Your task to perform on an android device: Go to ESPN.com Image 0: 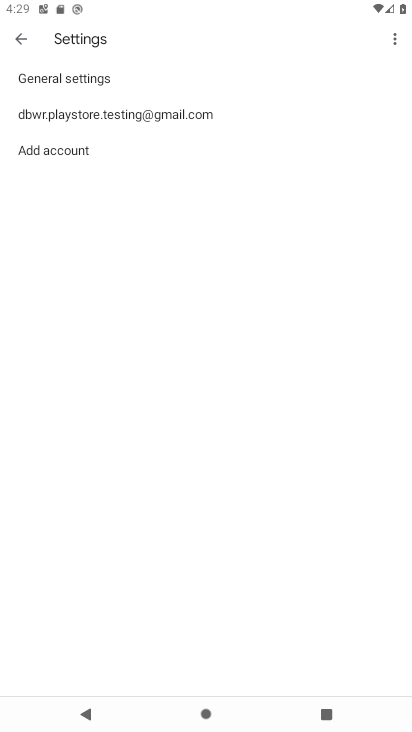
Step 0: press home button
Your task to perform on an android device: Go to ESPN.com Image 1: 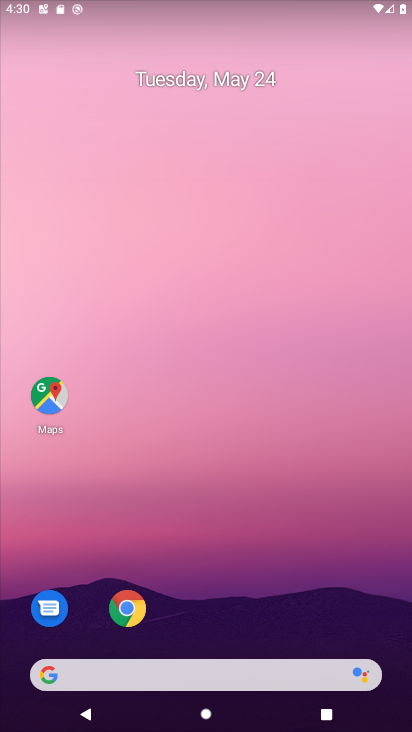
Step 1: click (130, 607)
Your task to perform on an android device: Go to ESPN.com Image 2: 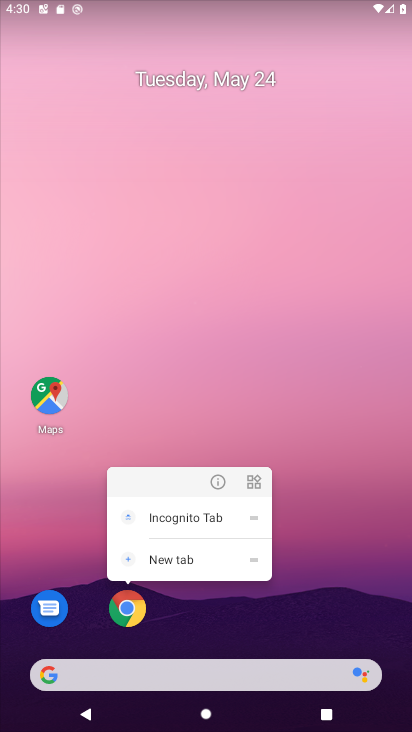
Step 2: click (126, 617)
Your task to perform on an android device: Go to ESPN.com Image 3: 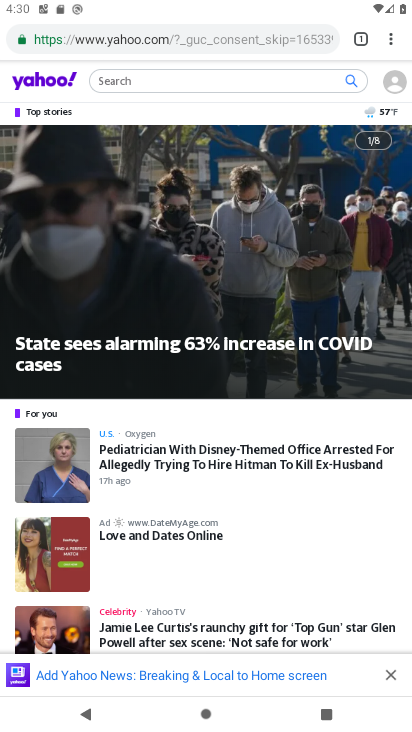
Step 3: click (362, 43)
Your task to perform on an android device: Go to ESPN.com Image 4: 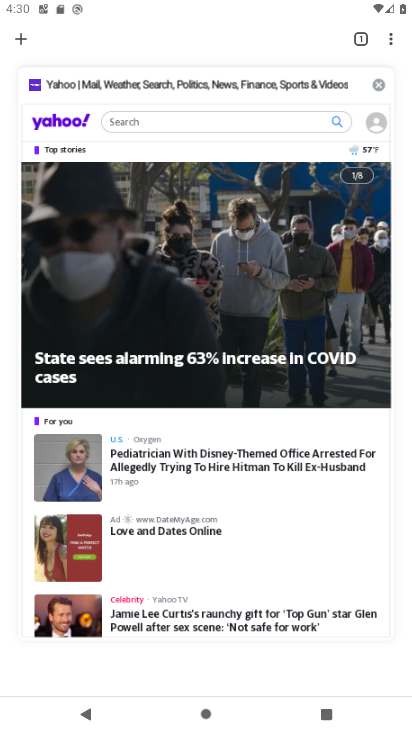
Step 4: click (374, 82)
Your task to perform on an android device: Go to ESPN.com Image 5: 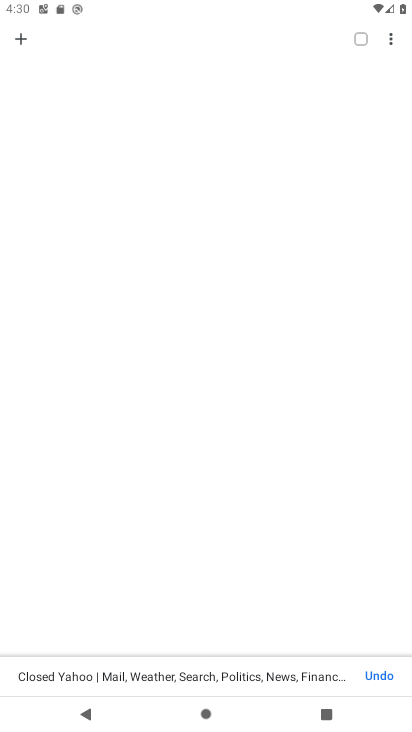
Step 5: click (22, 38)
Your task to perform on an android device: Go to ESPN.com Image 6: 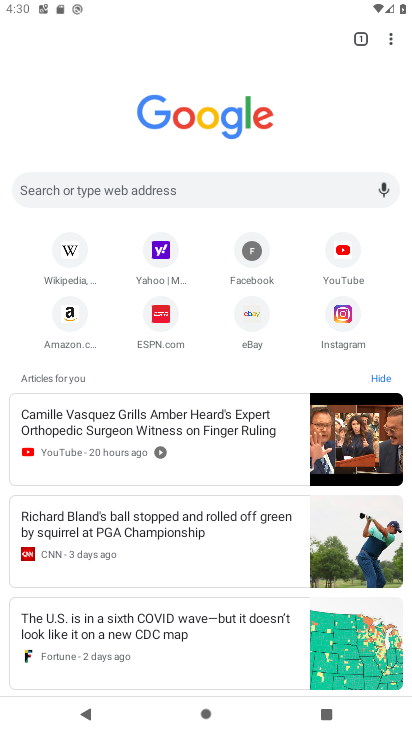
Step 6: click (158, 305)
Your task to perform on an android device: Go to ESPN.com Image 7: 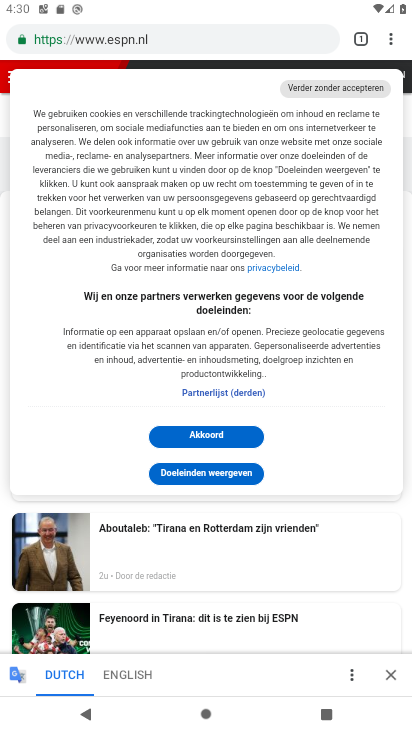
Step 7: task complete